Your task to perform on an android device: Open battery settings Image 0: 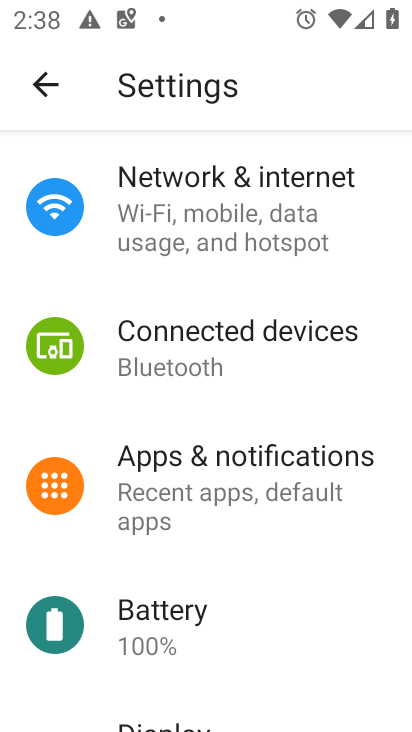
Step 0: drag from (277, 630) to (239, 166)
Your task to perform on an android device: Open battery settings Image 1: 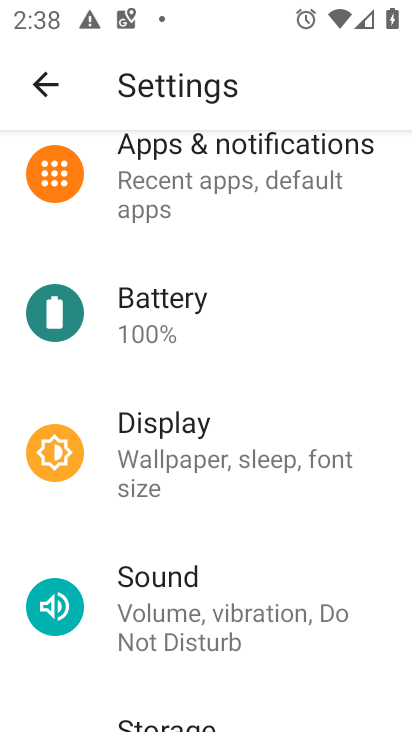
Step 1: click (170, 312)
Your task to perform on an android device: Open battery settings Image 2: 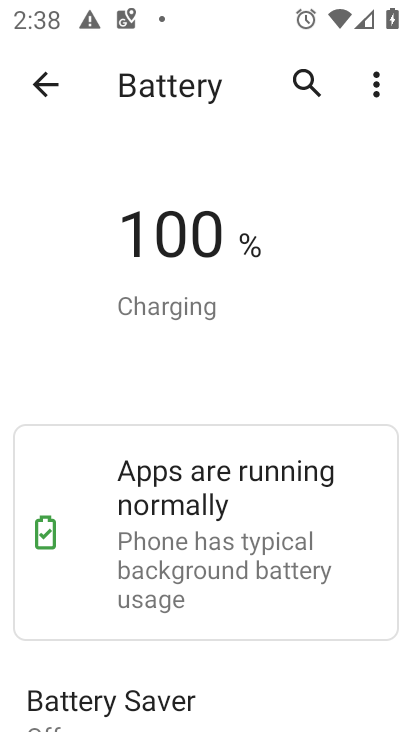
Step 2: task complete